Your task to perform on an android device: Open Yahoo.com Image 0: 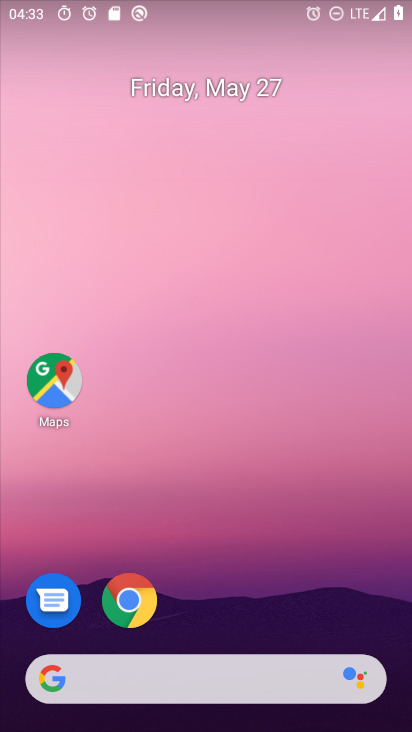
Step 0: click (125, 595)
Your task to perform on an android device: Open Yahoo.com Image 1: 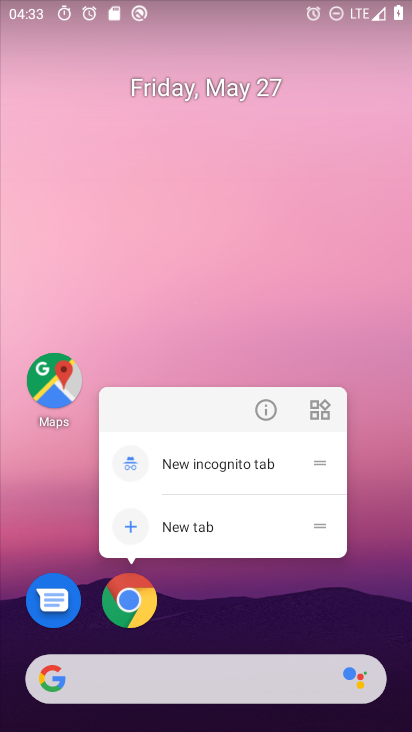
Step 1: click (128, 597)
Your task to perform on an android device: Open Yahoo.com Image 2: 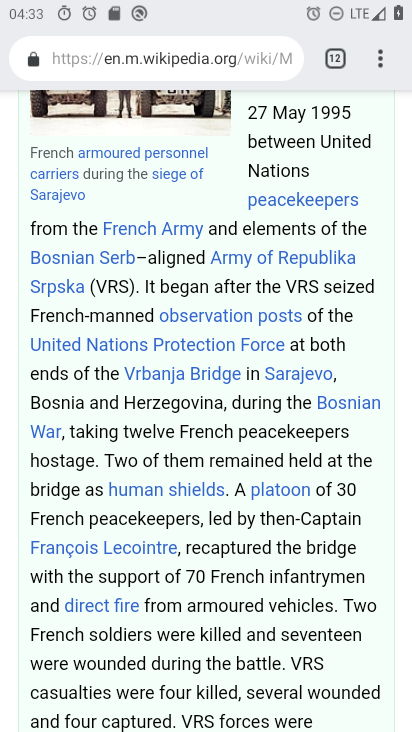
Step 2: click (381, 62)
Your task to perform on an android device: Open Yahoo.com Image 3: 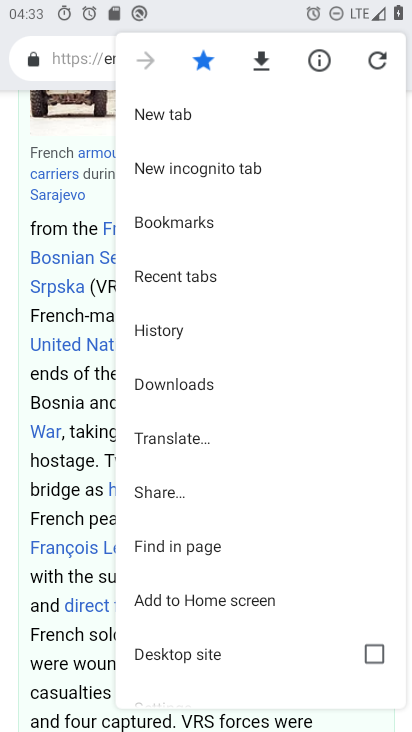
Step 3: click (160, 112)
Your task to perform on an android device: Open Yahoo.com Image 4: 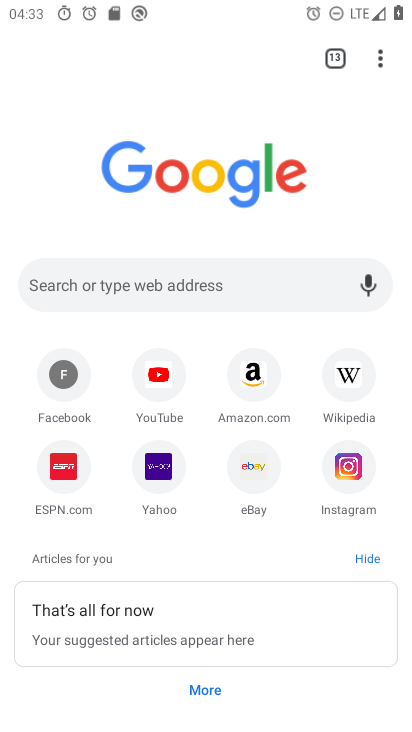
Step 4: click (159, 476)
Your task to perform on an android device: Open Yahoo.com Image 5: 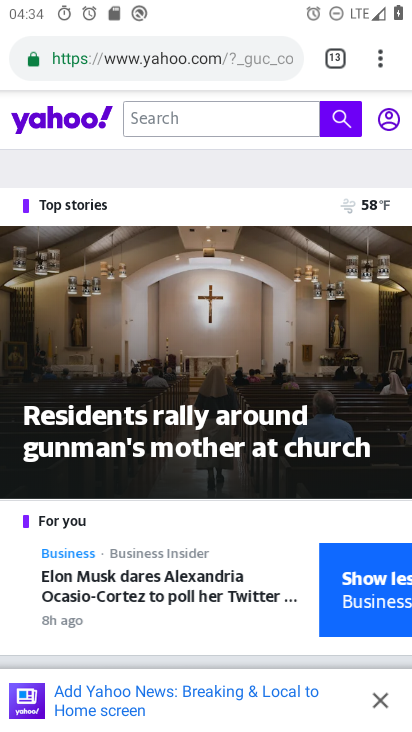
Step 5: task complete